Your task to perform on an android device: Open accessibility settings Image 0: 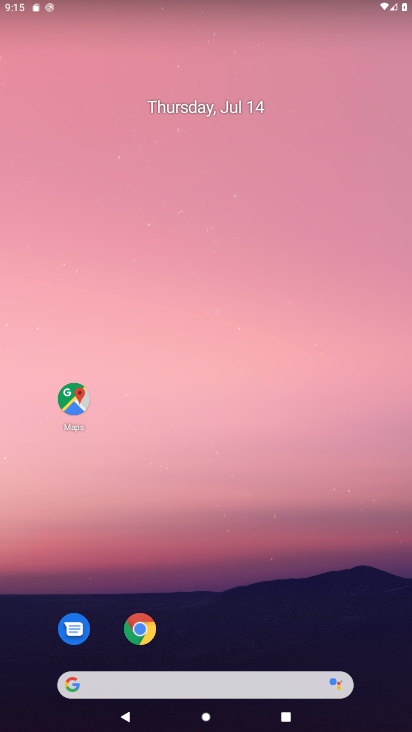
Step 0: drag from (293, 607) to (269, 5)
Your task to perform on an android device: Open accessibility settings Image 1: 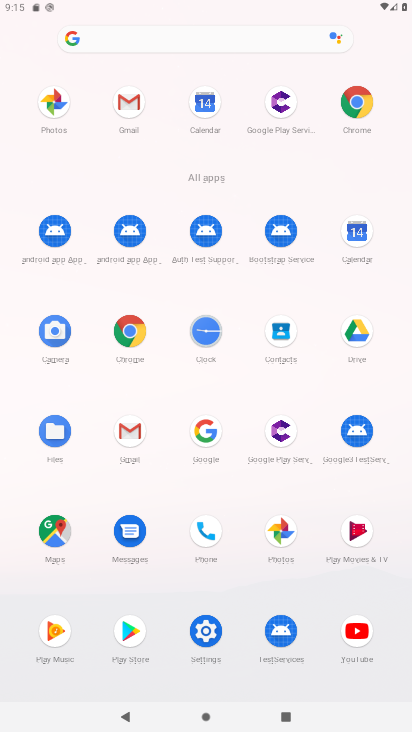
Step 1: click (213, 634)
Your task to perform on an android device: Open accessibility settings Image 2: 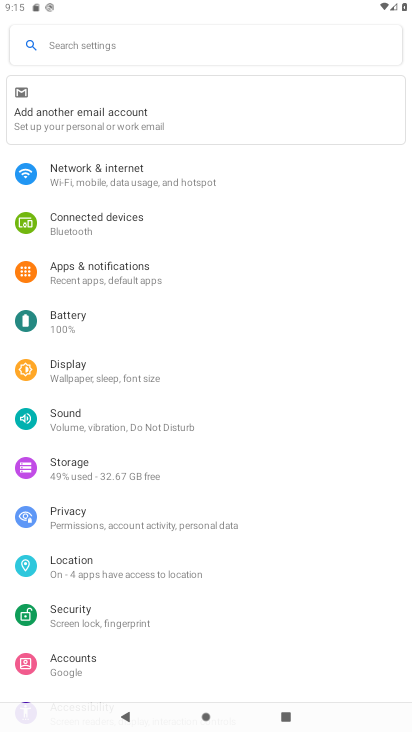
Step 2: drag from (105, 652) to (99, 364)
Your task to perform on an android device: Open accessibility settings Image 3: 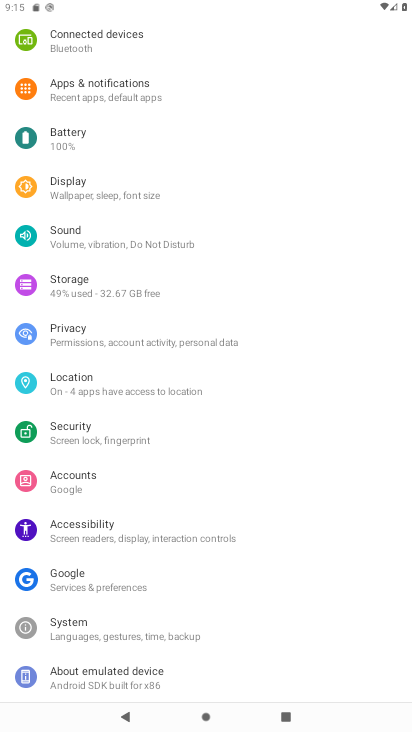
Step 3: click (72, 526)
Your task to perform on an android device: Open accessibility settings Image 4: 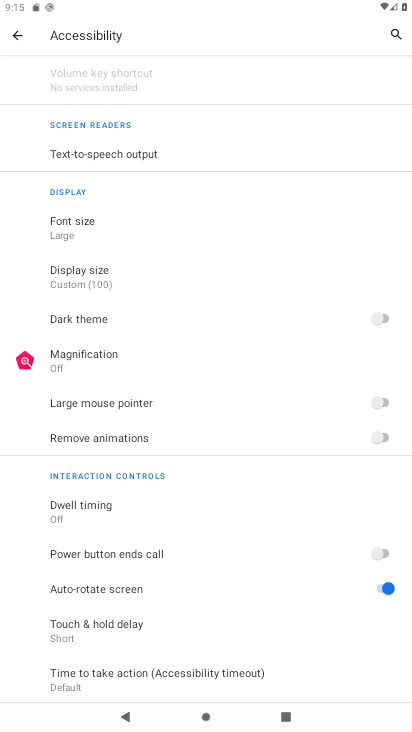
Step 4: task complete